Your task to perform on an android device: Go to Android settings Image 0: 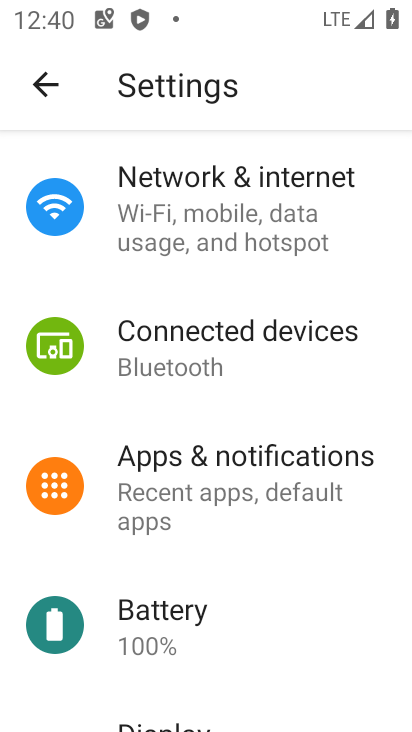
Step 0: press home button
Your task to perform on an android device: Go to Android settings Image 1: 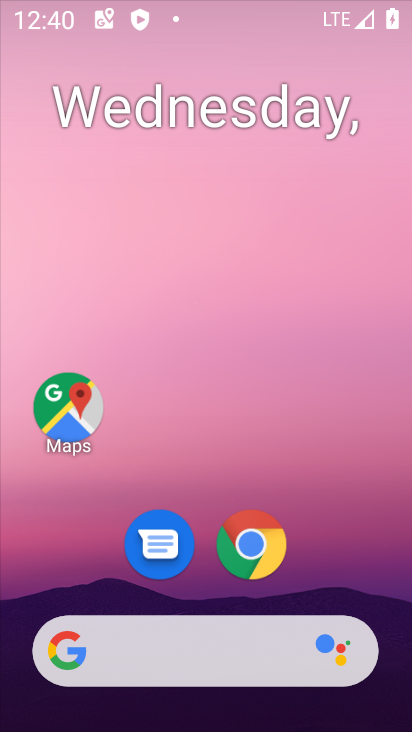
Step 1: drag from (391, 641) to (276, 56)
Your task to perform on an android device: Go to Android settings Image 2: 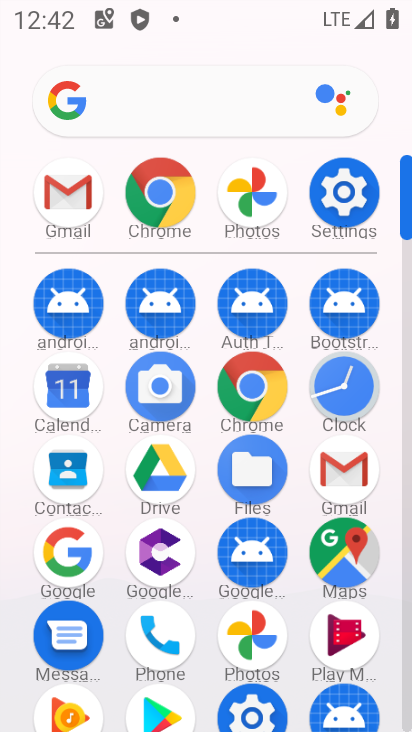
Step 2: click (333, 194)
Your task to perform on an android device: Go to Android settings Image 3: 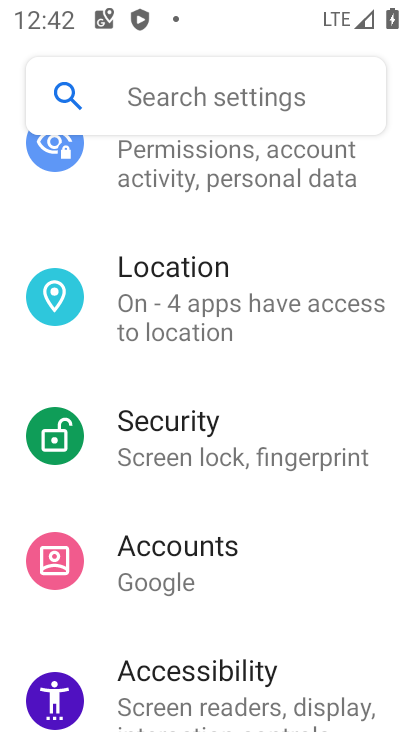
Step 3: drag from (244, 572) to (277, 449)
Your task to perform on an android device: Go to Android settings Image 4: 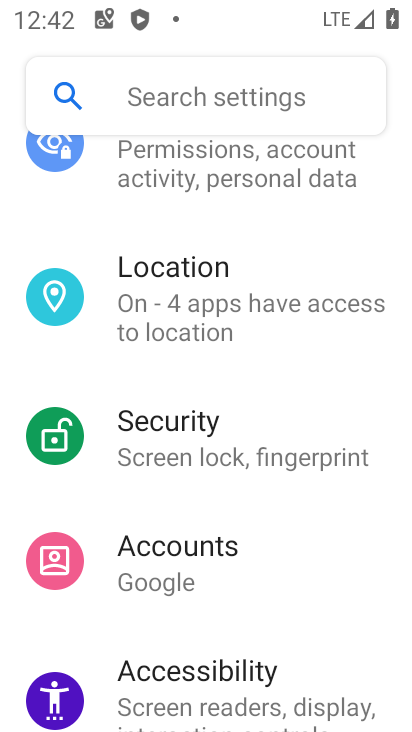
Step 4: drag from (284, 303) to (289, 170)
Your task to perform on an android device: Go to Android settings Image 5: 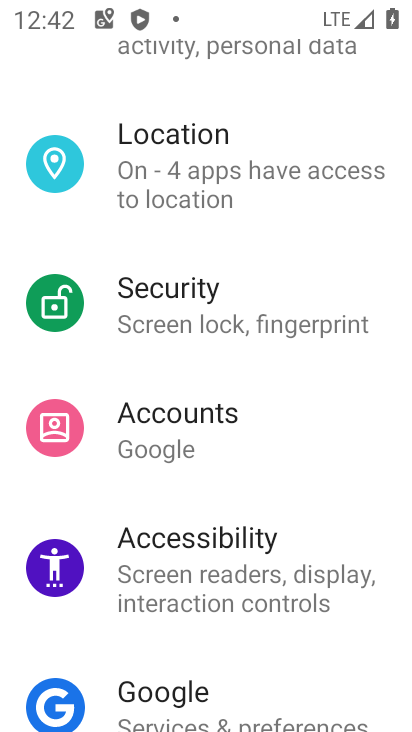
Step 5: drag from (185, 687) to (275, 188)
Your task to perform on an android device: Go to Android settings Image 6: 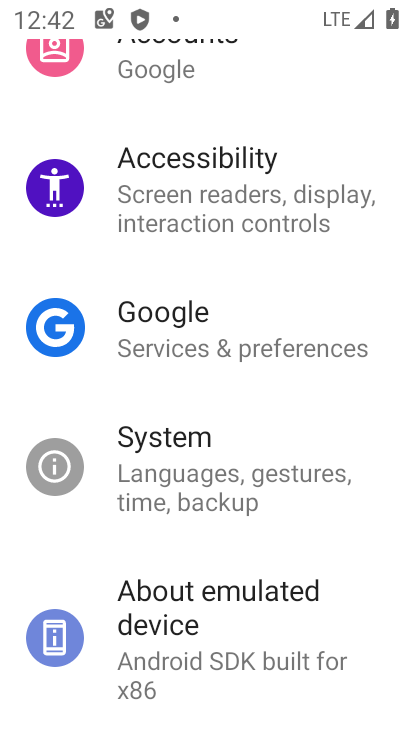
Step 6: click (219, 652)
Your task to perform on an android device: Go to Android settings Image 7: 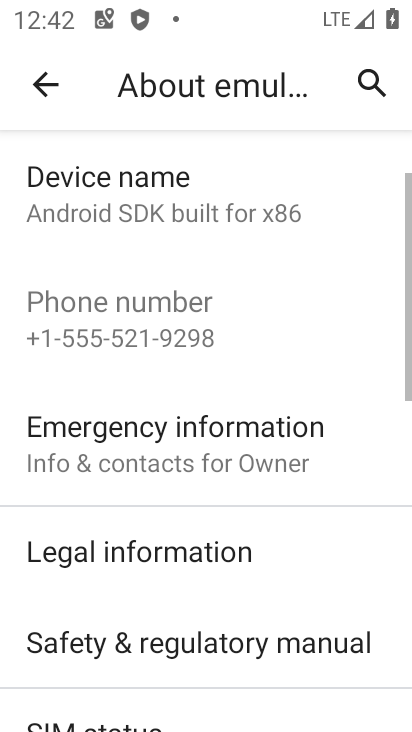
Step 7: drag from (150, 658) to (244, 236)
Your task to perform on an android device: Go to Android settings Image 8: 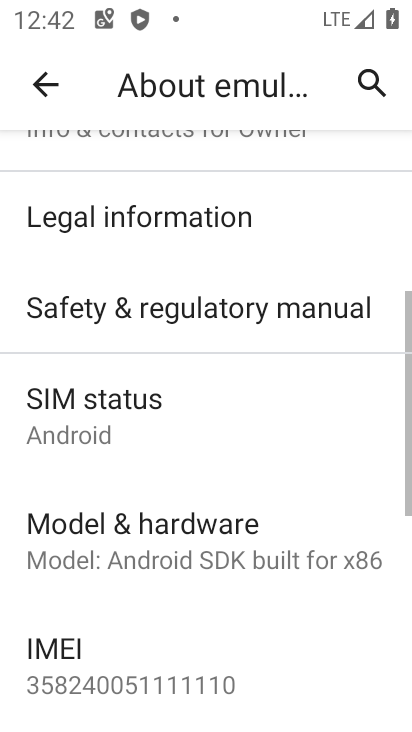
Step 8: drag from (166, 639) to (264, 198)
Your task to perform on an android device: Go to Android settings Image 9: 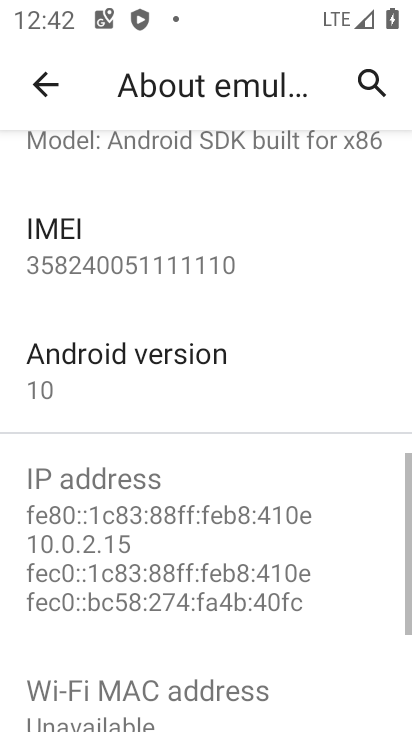
Step 9: click (148, 368)
Your task to perform on an android device: Go to Android settings Image 10: 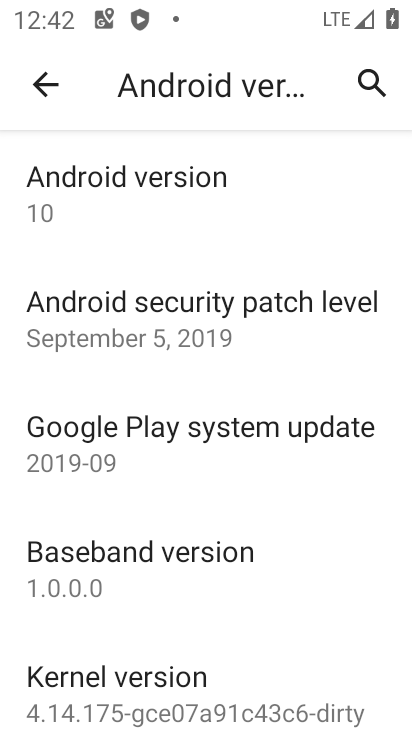
Step 10: task complete